Your task to perform on an android device: What's on my calendar tomorrow? Image 0: 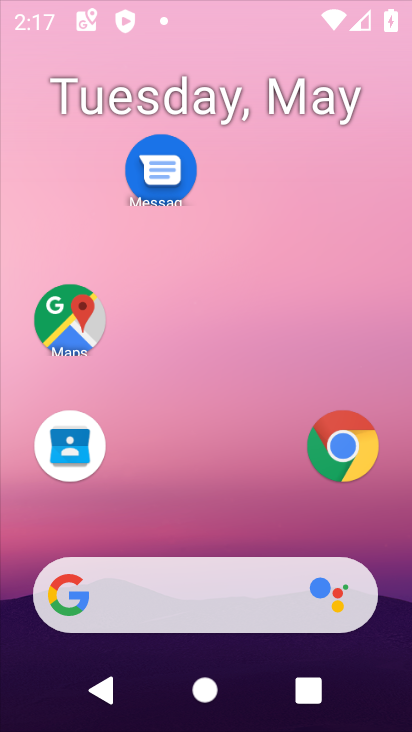
Step 0: click (36, 85)
Your task to perform on an android device: What's on my calendar tomorrow? Image 1: 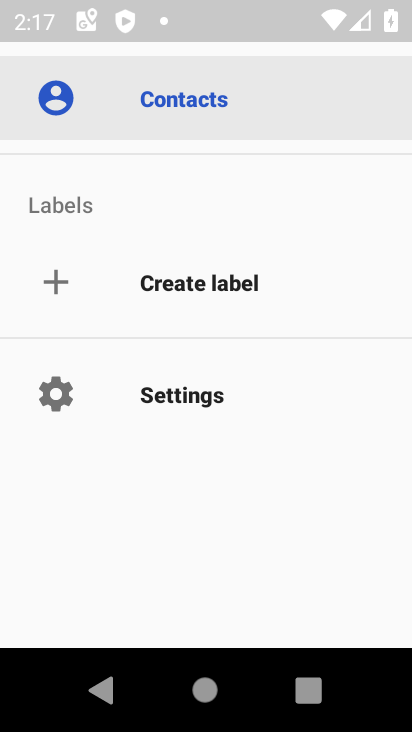
Step 1: press home button
Your task to perform on an android device: What's on my calendar tomorrow? Image 2: 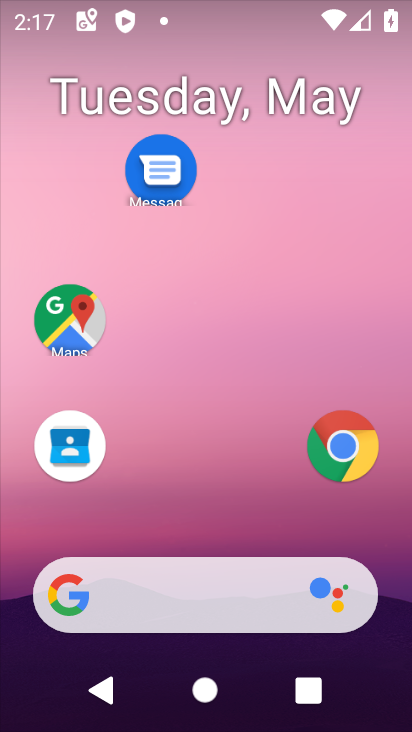
Step 2: drag from (192, 553) to (393, 387)
Your task to perform on an android device: What's on my calendar tomorrow? Image 3: 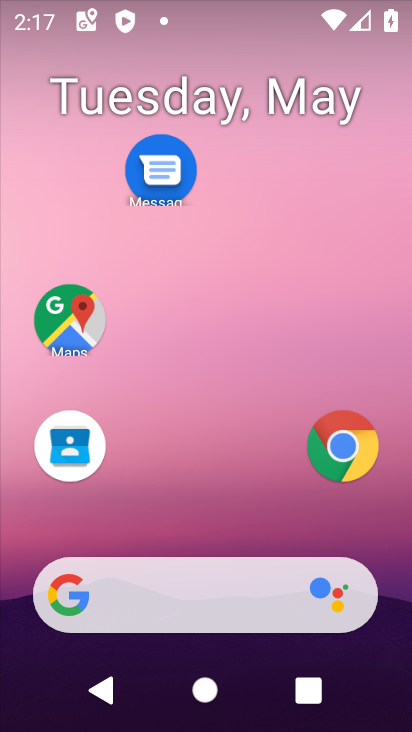
Step 3: drag from (224, 543) to (205, 10)
Your task to perform on an android device: What's on my calendar tomorrow? Image 4: 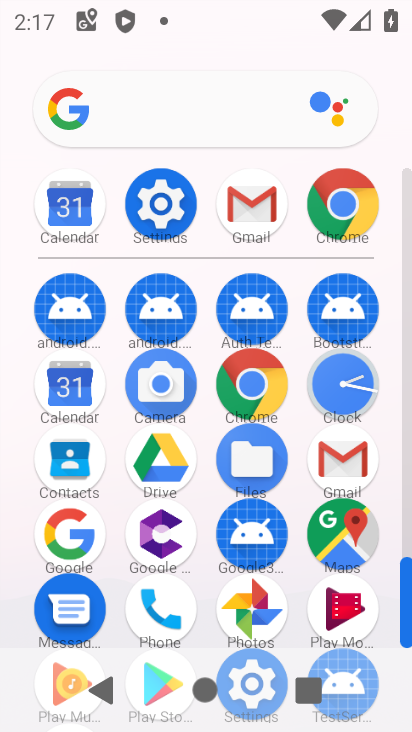
Step 4: click (65, 393)
Your task to perform on an android device: What's on my calendar tomorrow? Image 5: 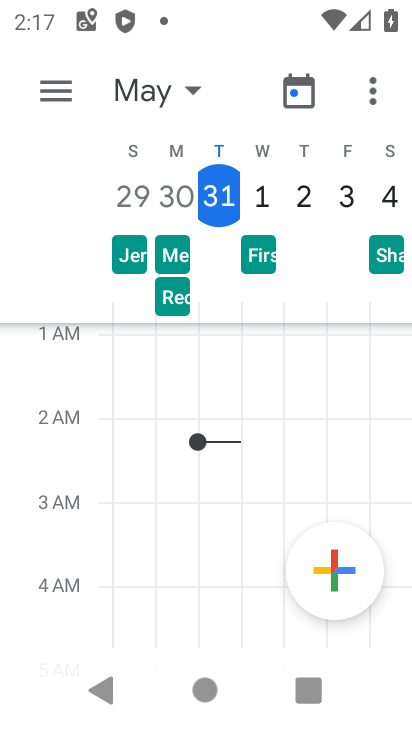
Step 5: click (247, 206)
Your task to perform on an android device: What's on my calendar tomorrow? Image 6: 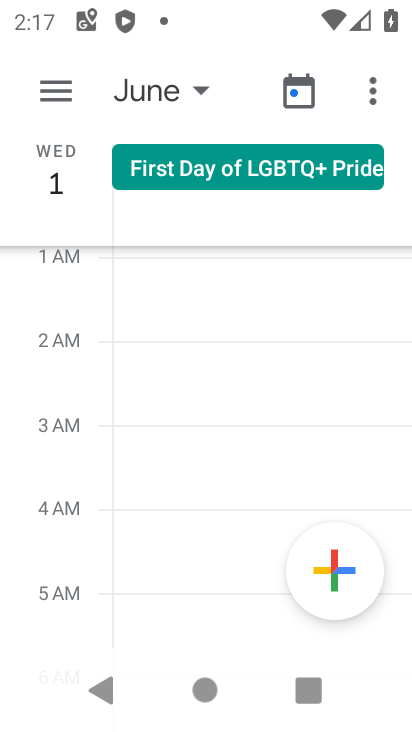
Step 6: task complete